Your task to perform on an android device: Open my contact list Image 0: 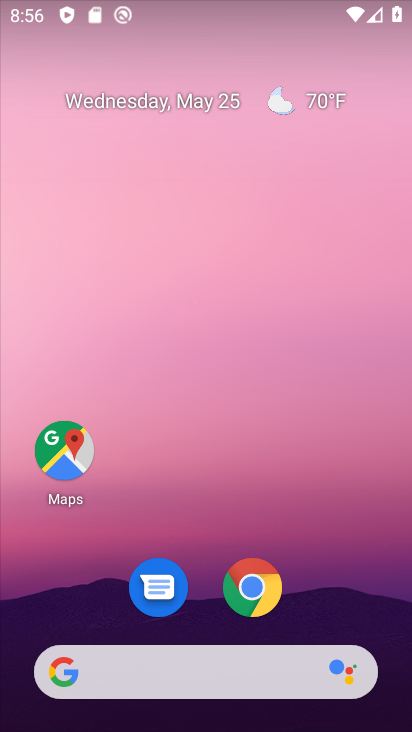
Step 0: drag from (196, 624) to (236, 0)
Your task to perform on an android device: Open my contact list Image 1: 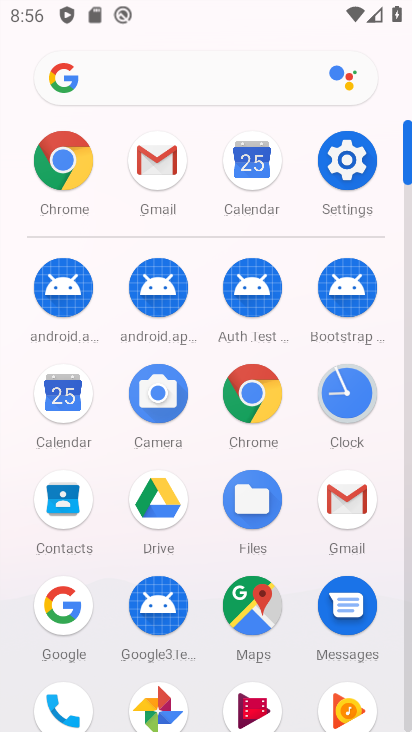
Step 1: click (89, 515)
Your task to perform on an android device: Open my contact list Image 2: 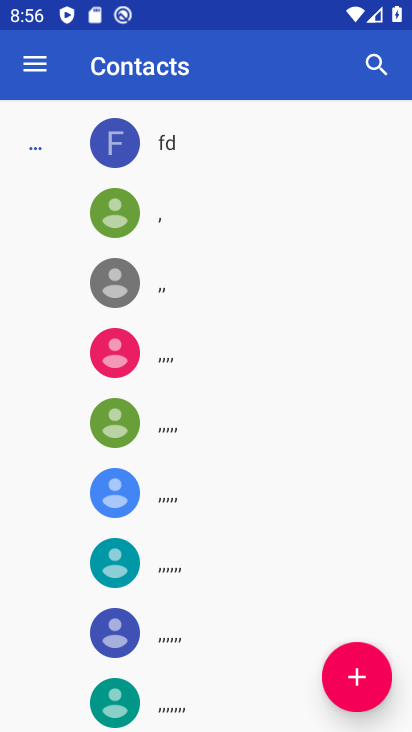
Step 2: task complete